Your task to perform on an android device: Open the map Image 0: 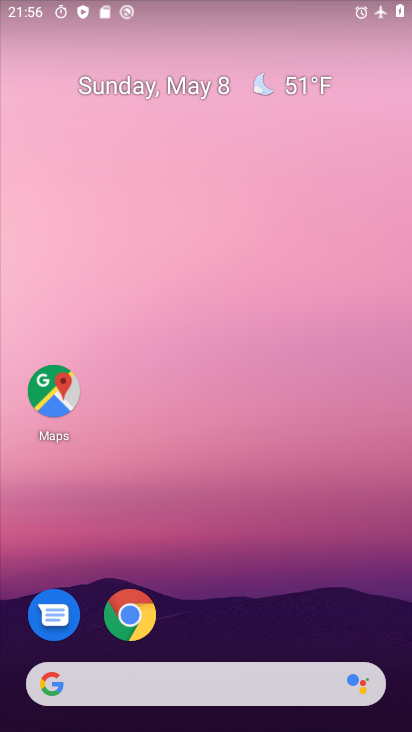
Step 0: click (55, 374)
Your task to perform on an android device: Open the map Image 1: 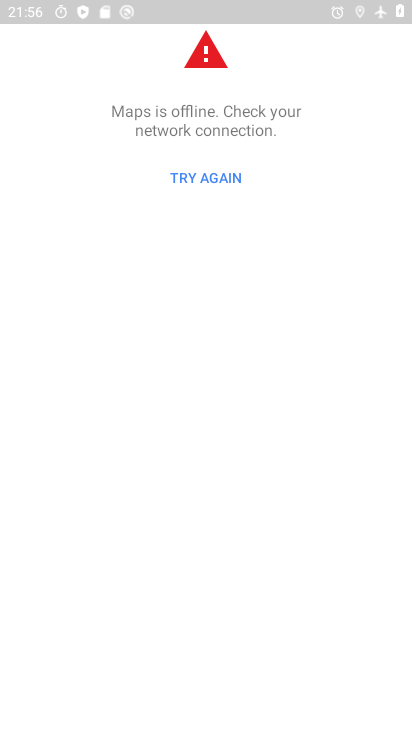
Step 1: task complete